Your task to perform on an android device: turn off data saver in the chrome app Image 0: 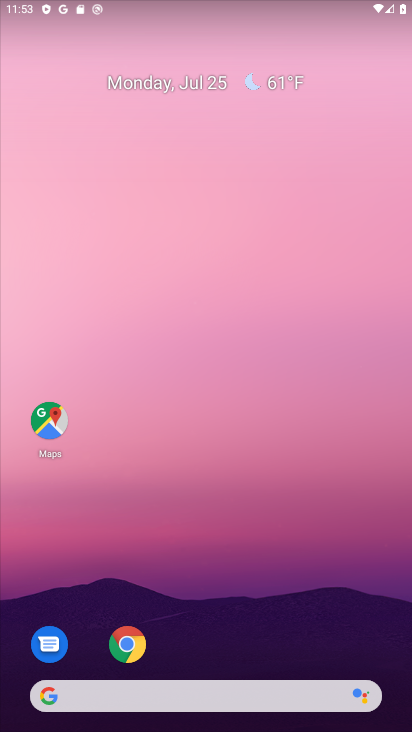
Step 0: click (122, 639)
Your task to perform on an android device: turn off data saver in the chrome app Image 1: 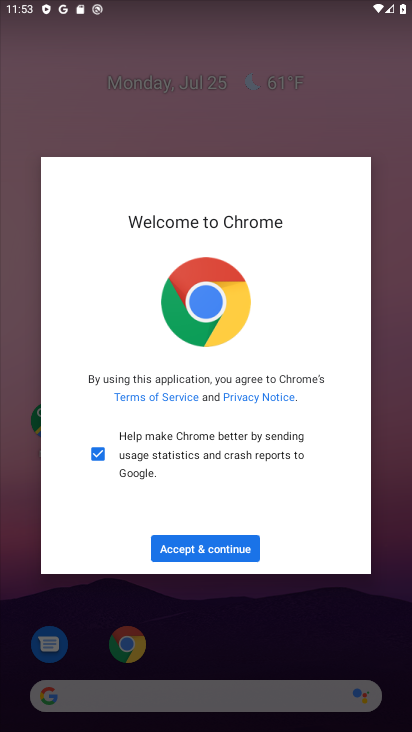
Step 1: click (240, 551)
Your task to perform on an android device: turn off data saver in the chrome app Image 2: 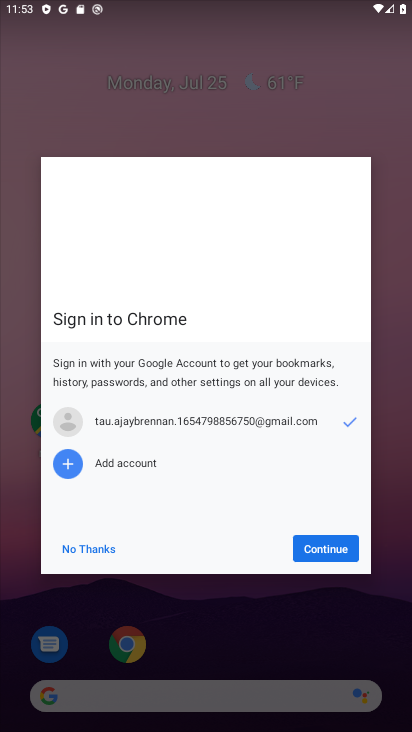
Step 2: click (314, 541)
Your task to perform on an android device: turn off data saver in the chrome app Image 3: 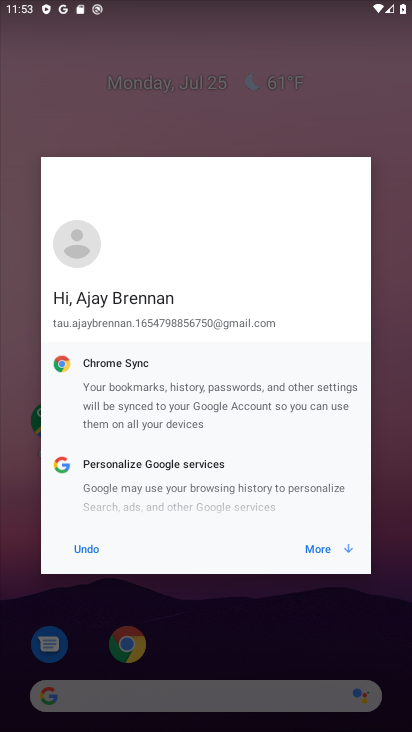
Step 3: click (314, 541)
Your task to perform on an android device: turn off data saver in the chrome app Image 4: 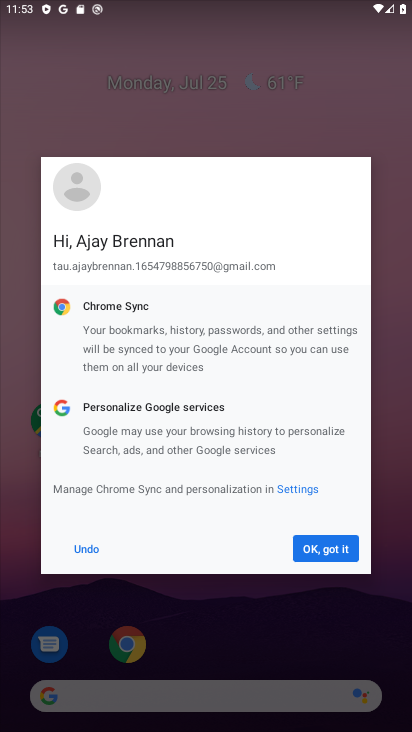
Step 4: click (314, 541)
Your task to perform on an android device: turn off data saver in the chrome app Image 5: 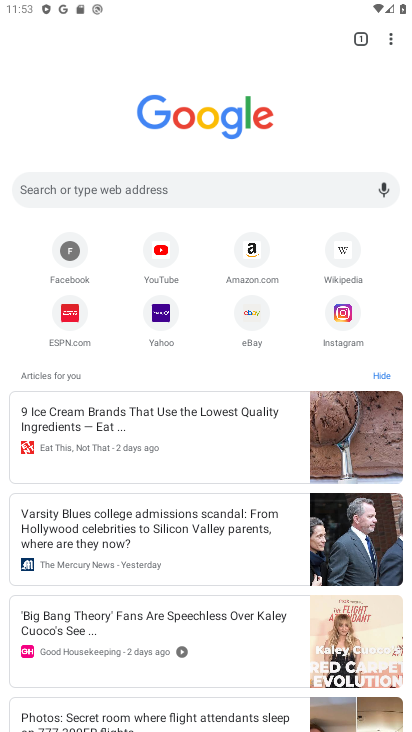
Step 5: click (393, 33)
Your task to perform on an android device: turn off data saver in the chrome app Image 6: 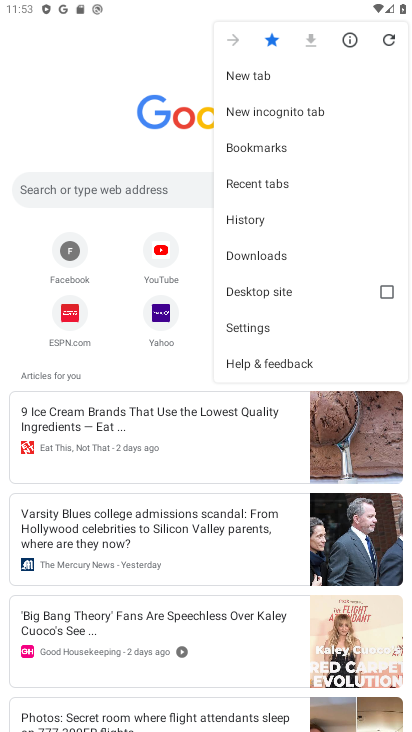
Step 6: click (280, 324)
Your task to perform on an android device: turn off data saver in the chrome app Image 7: 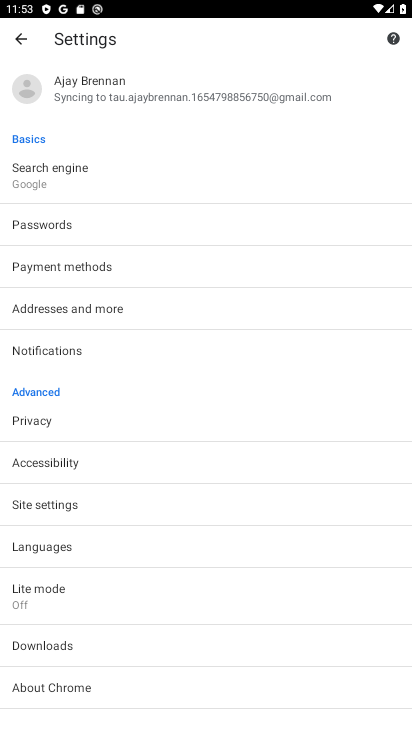
Step 7: click (68, 597)
Your task to perform on an android device: turn off data saver in the chrome app Image 8: 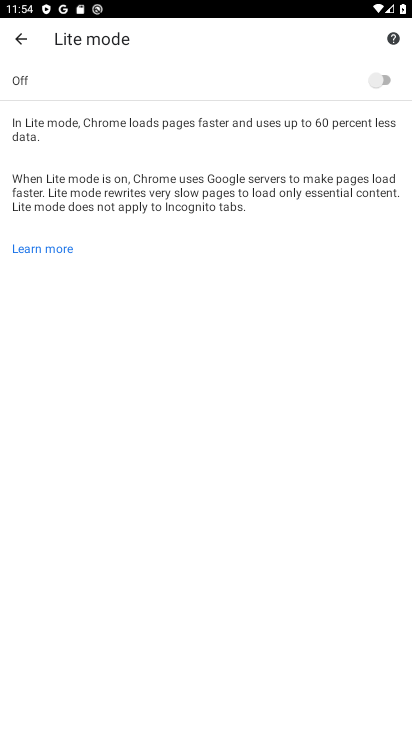
Step 8: task complete